Your task to perform on an android device: turn off javascript in the chrome app Image 0: 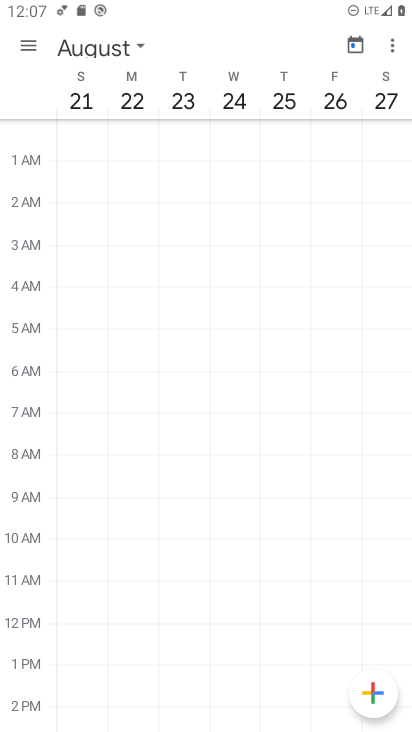
Step 0: press home button
Your task to perform on an android device: turn off javascript in the chrome app Image 1: 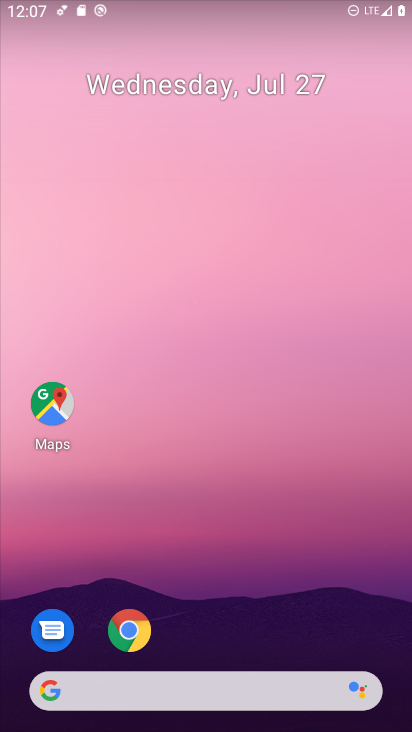
Step 1: click (131, 631)
Your task to perform on an android device: turn off javascript in the chrome app Image 2: 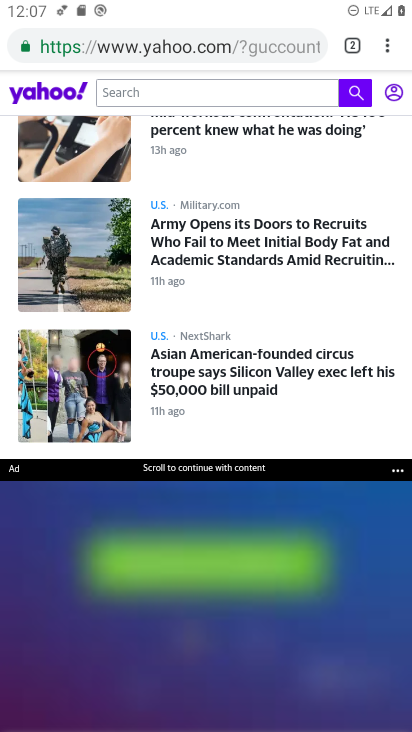
Step 2: click (388, 50)
Your task to perform on an android device: turn off javascript in the chrome app Image 3: 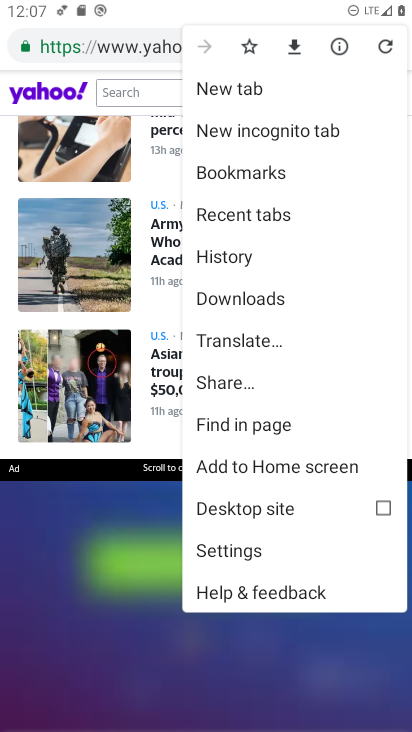
Step 3: click (235, 548)
Your task to perform on an android device: turn off javascript in the chrome app Image 4: 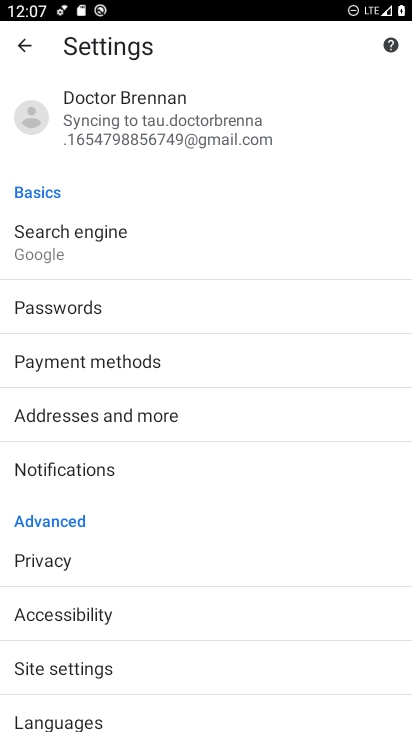
Step 4: drag from (205, 576) to (210, 362)
Your task to perform on an android device: turn off javascript in the chrome app Image 5: 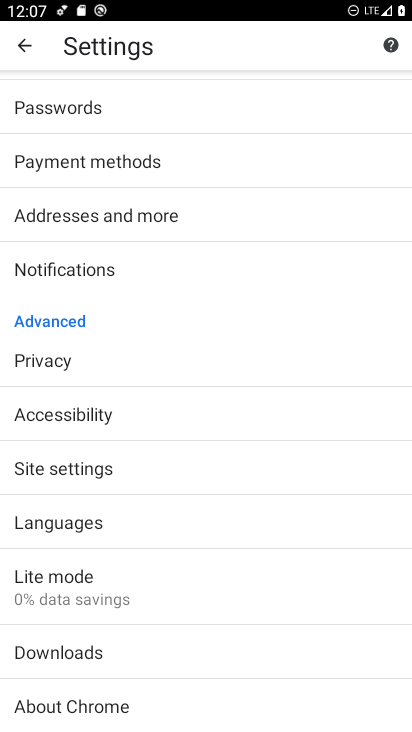
Step 5: click (84, 470)
Your task to perform on an android device: turn off javascript in the chrome app Image 6: 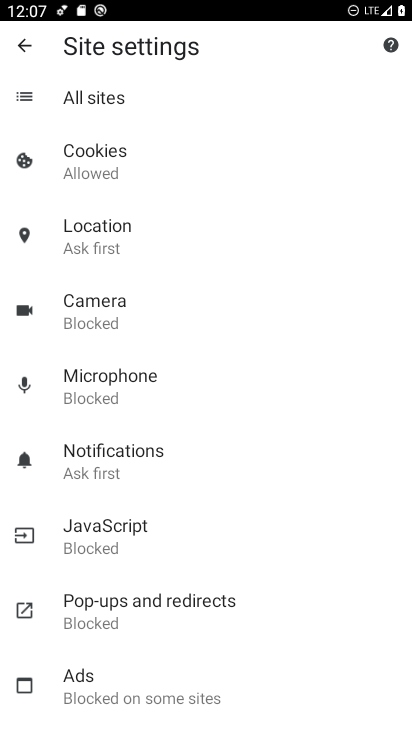
Step 6: click (108, 535)
Your task to perform on an android device: turn off javascript in the chrome app Image 7: 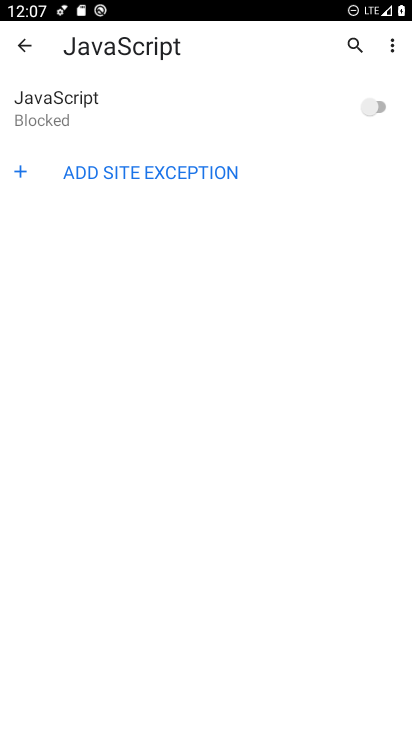
Step 7: task complete